Your task to perform on an android device: Turn off the flashlight Image 0: 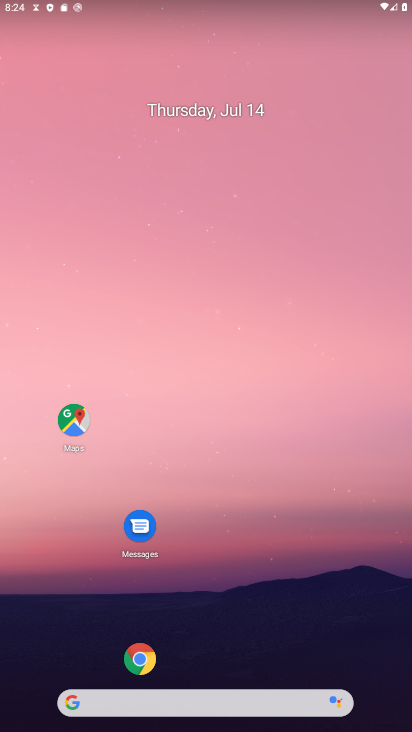
Step 0: drag from (165, 5) to (172, 494)
Your task to perform on an android device: Turn off the flashlight Image 1: 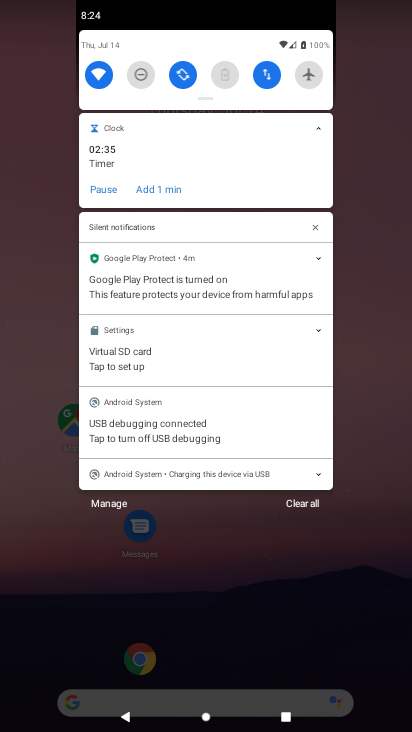
Step 1: drag from (178, 90) to (137, 441)
Your task to perform on an android device: Turn off the flashlight Image 2: 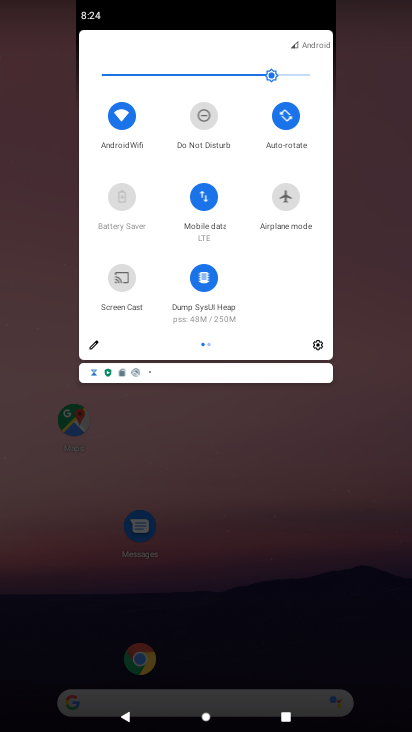
Step 2: drag from (280, 200) to (1, 228)
Your task to perform on an android device: Turn off the flashlight Image 3: 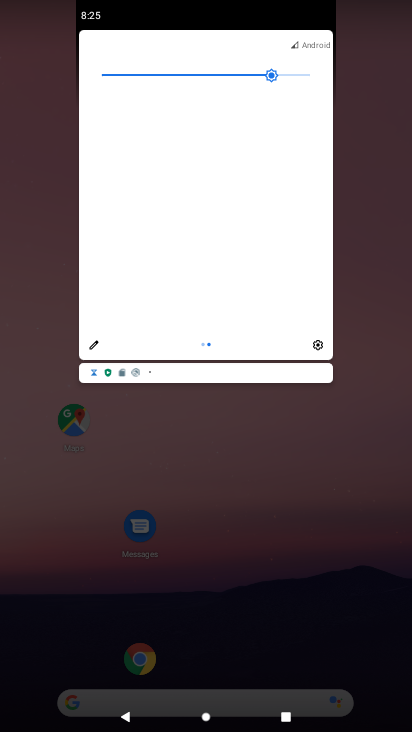
Step 3: click (100, 343)
Your task to perform on an android device: Turn off the flashlight Image 4: 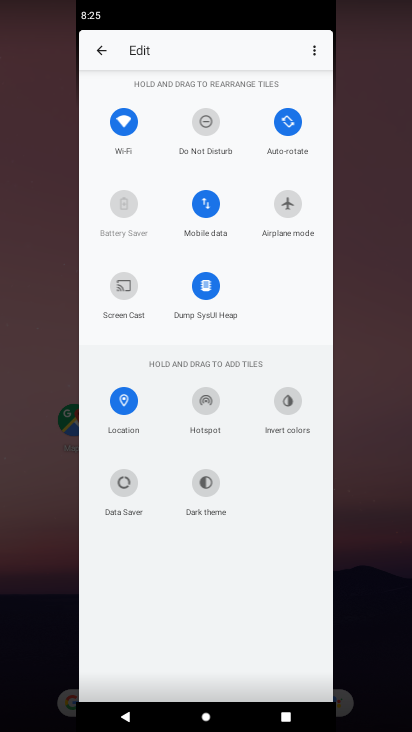
Step 4: task complete